Your task to perform on an android device: check data usage Image 0: 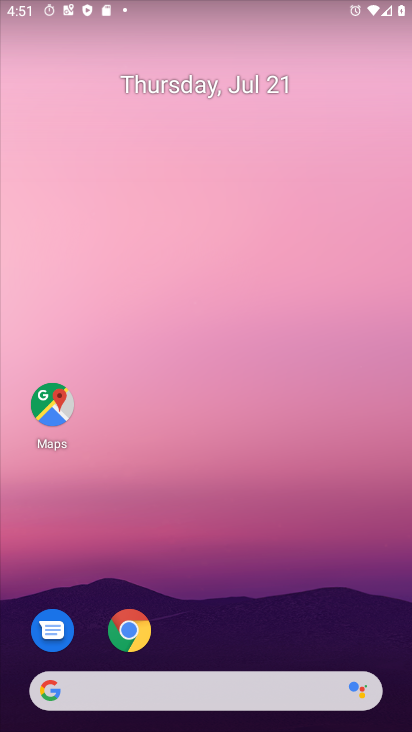
Step 0: drag from (195, 691) to (184, 101)
Your task to perform on an android device: check data usage Image 1: 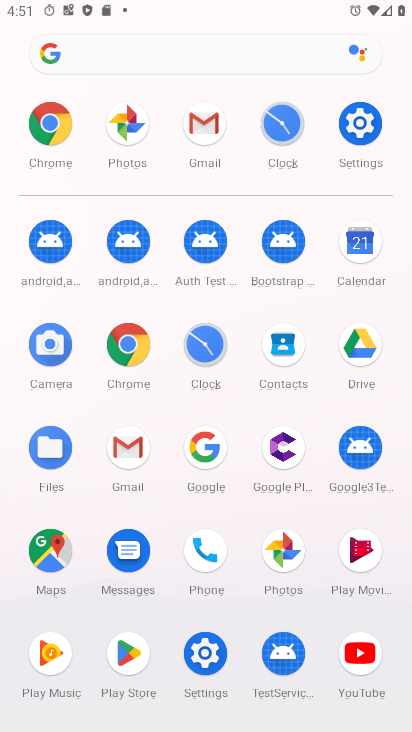
Step 1: click (360, 123)
Your task to perform on an android device: check data usage Image 2: 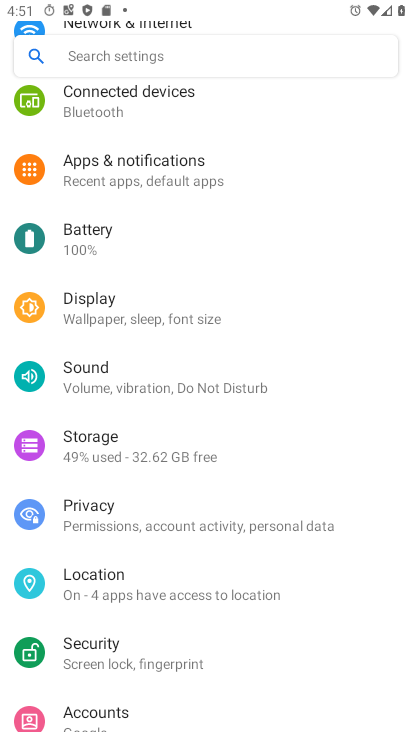
Step 2: drag from (172, 218) to (159, 514)
Your task to perform on an android device: check data usage Image 3: 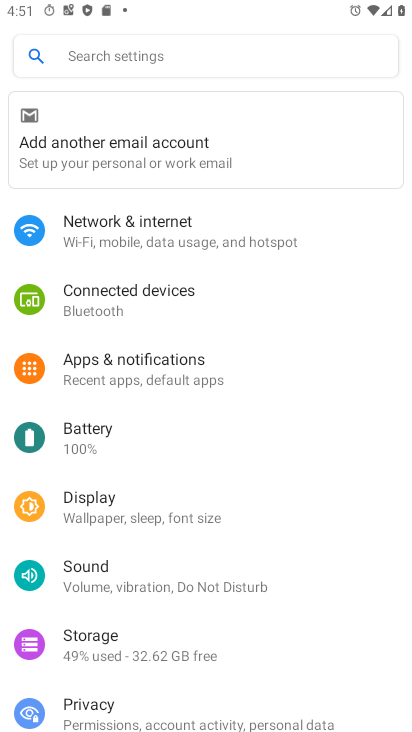
Step 3: click (123, 225)
Your task to perform on an android device: check data usage Image 4: 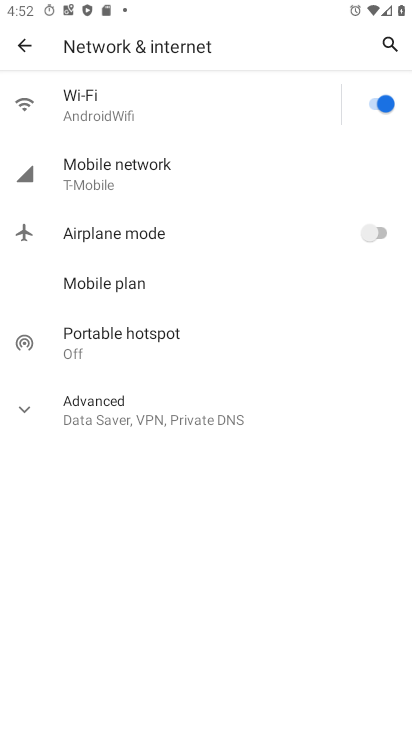
Step 4: click (124, 172)
Your task to perform on an android device: check data usage Image 5: 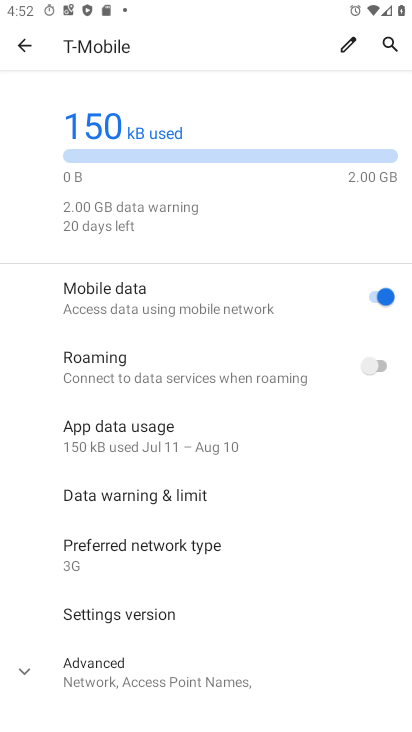
Step 5: task complete